Your task to perform on an android device: Show me recent news Image 0: 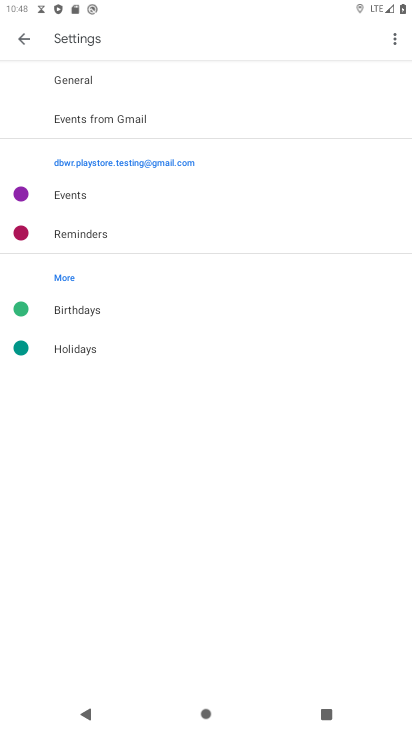
Step 0: drag from (181, 632) to (162, 442)
Your task to perform on an android device: Show me recent news Image 1: 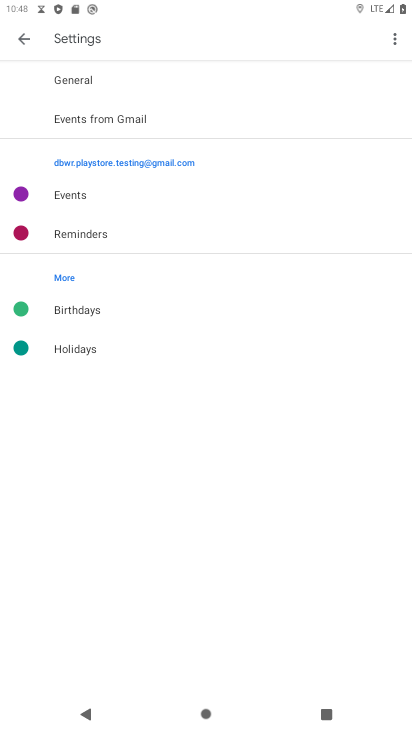
Step 1: task complete